Your task to perform on an android device: turn pop-ups off in chrome Image 0: 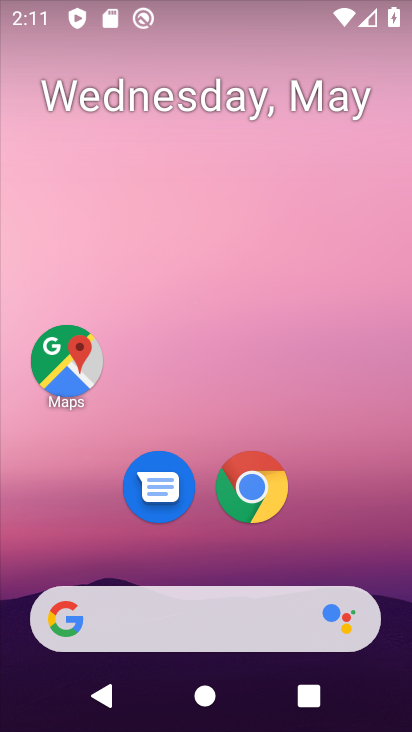
Step 0: drag from (336, 514) to (313, 56)
Your task to perform on an android device: turn pop-ups off in chrome Image 1: 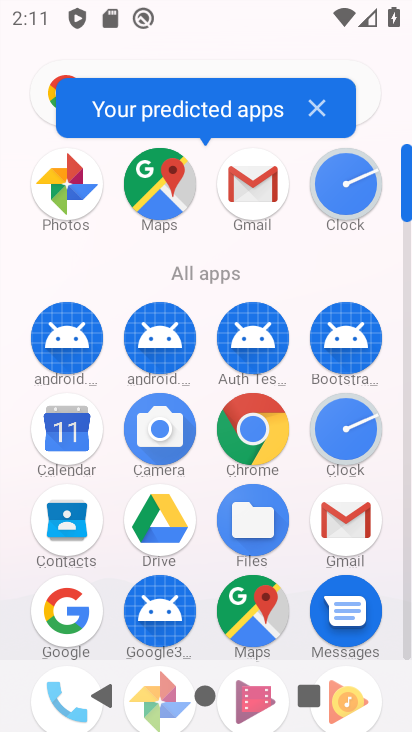
Step 1: click (240, 426)
Your task to perform on an android device: turn pop-ups off in chrome Image 2: 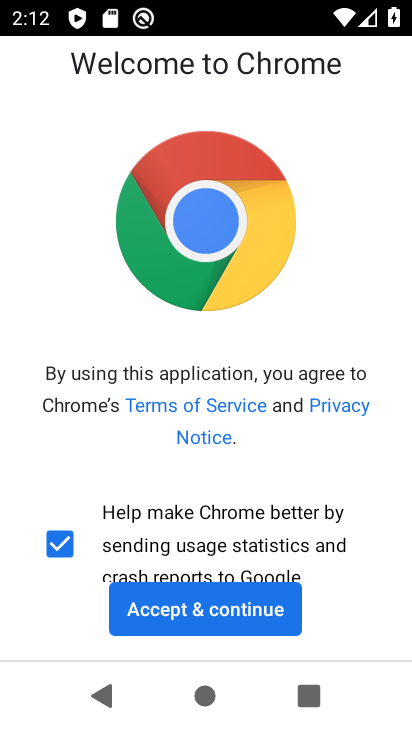
Step 2: click (252, 615)
Your task to perform on an android device: turn pop-ups off in chrome Image 3: 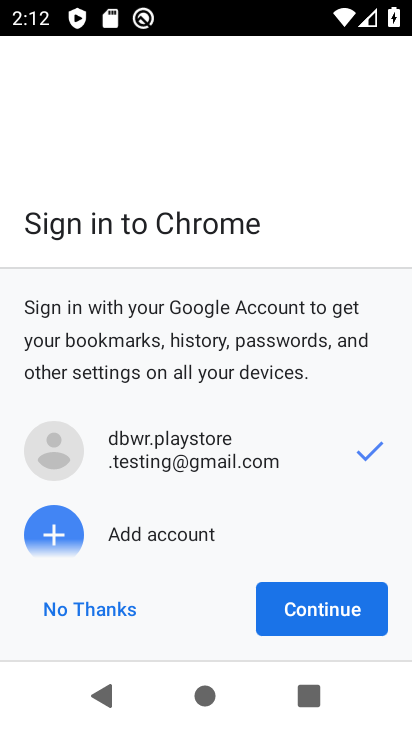
Step 3: click (295, 617)
Your task to perform on an android device: turn pop-ups off in chrome Image 4: 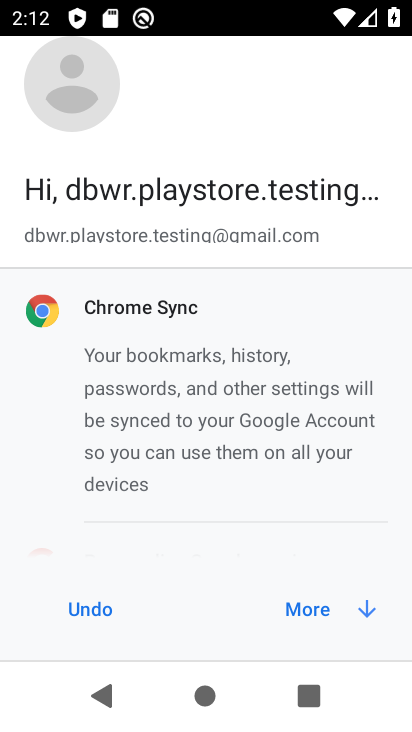
Step 4: click (330, 597)
Your task to perform on an android device: turn pop-ups off in chrome Image 5: 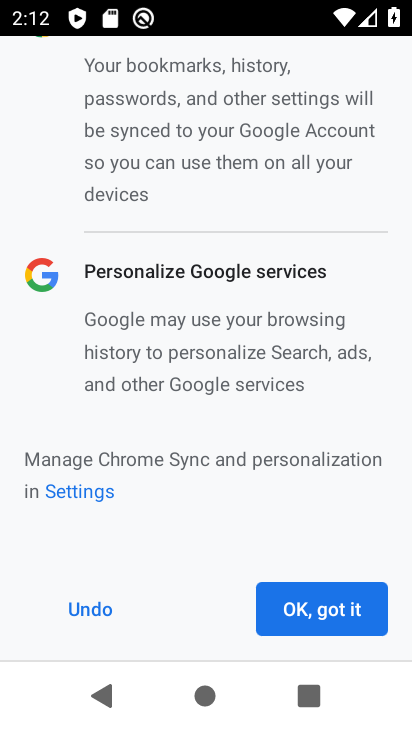
Step 5: click (330, 600)
Your task to perform on an android device: turn pop-ups off in chrome Image 6: 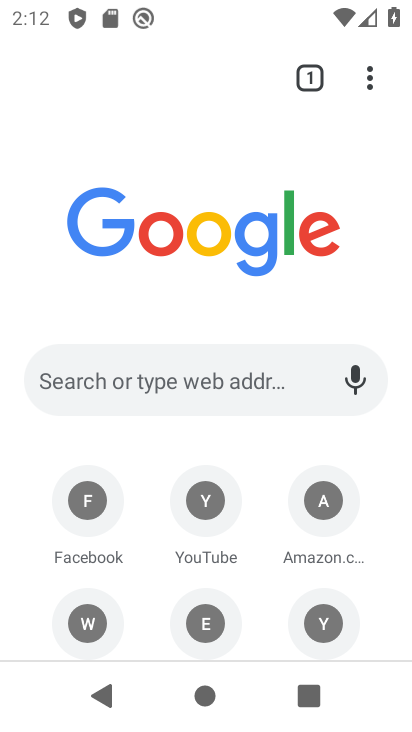
Step 6: click (371, 77)
Your task to perform on an android device: turn pop-ups off in chrome Image 7: 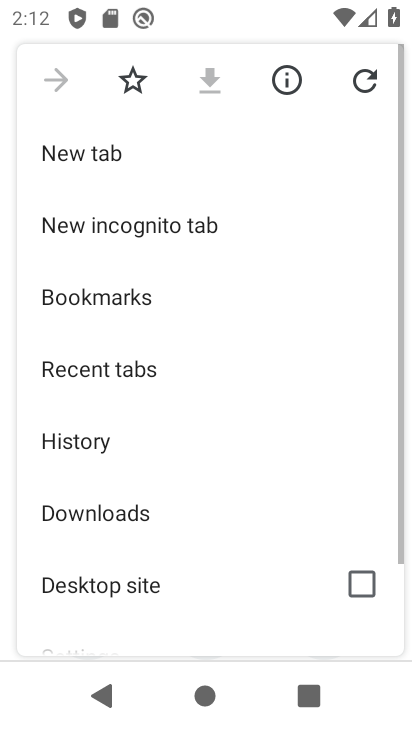
Step 7: drag from (265, 519) to (279, 165)
Your task to perform on an android device: turn pop-ups off in chrome Image 8: 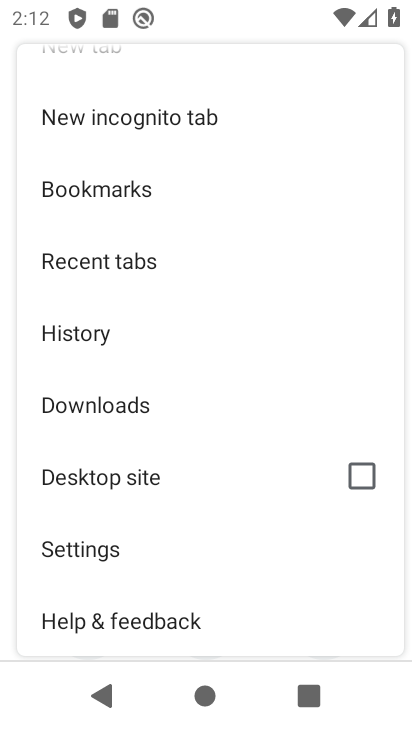
Step 8: click (96, 541)
Your task to perform on an android device: turn pop-ups off in chrome Image 9: 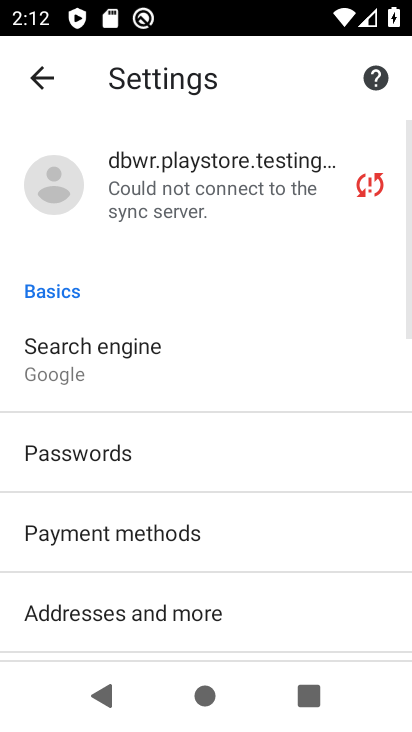
Step 9: drag from (194, 494) to (243, 220)
Your task to perform on an android device: turn pop-ups off in chrome Image 10: 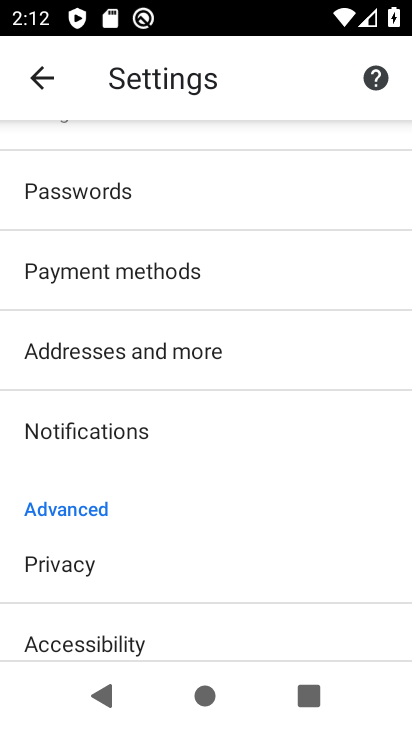
Step 10: drag from (272, 432) to (297, 175)
Your task to perform on an android device: turn pop-ups off in chrome Image 11: 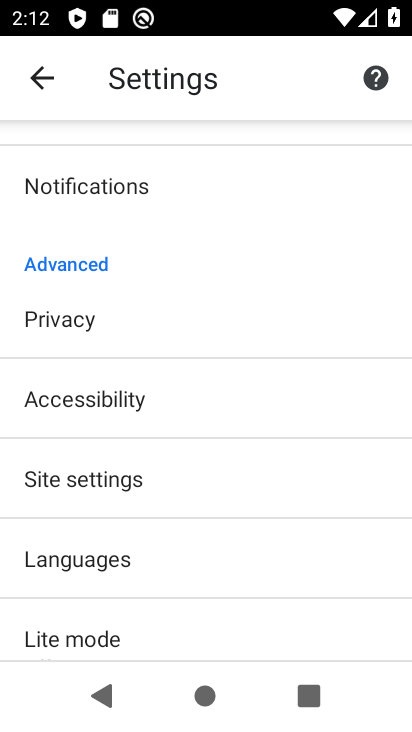
Step 11: click (149, 479)
Your task to perform on an android device: turn pop-ups off in chrome Image 12: 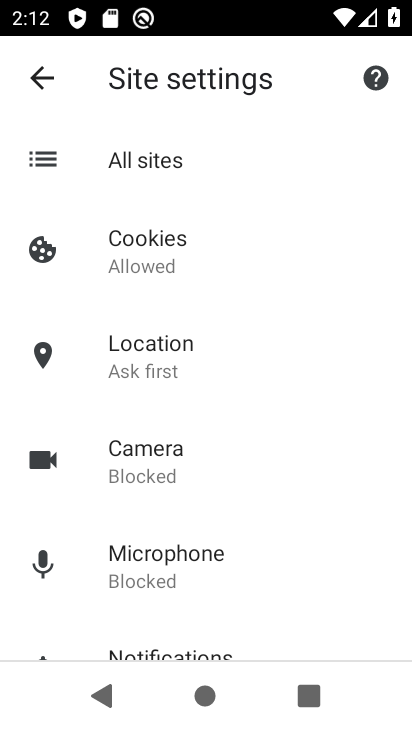
Step 12: drag from (237, 488) to (250, 143)
Your task to perform on an android device: turn pop-ups off in chrome Image 13: 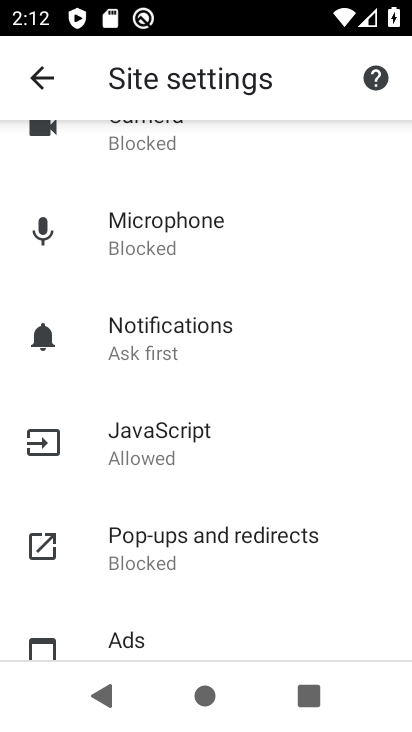
Step 13: click (230, 531)
Your task to perform on an android device: turn pop-ups off in chrome Image 14: 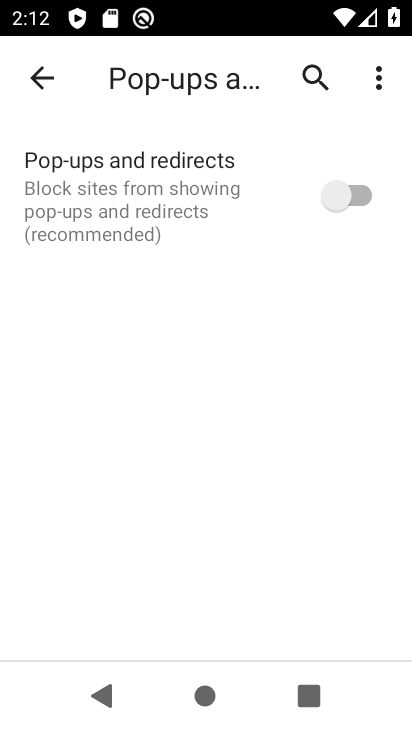
Step 14: task complete